Your task to perform on an android device: turn on priority inbox in the gmail app Image 0: 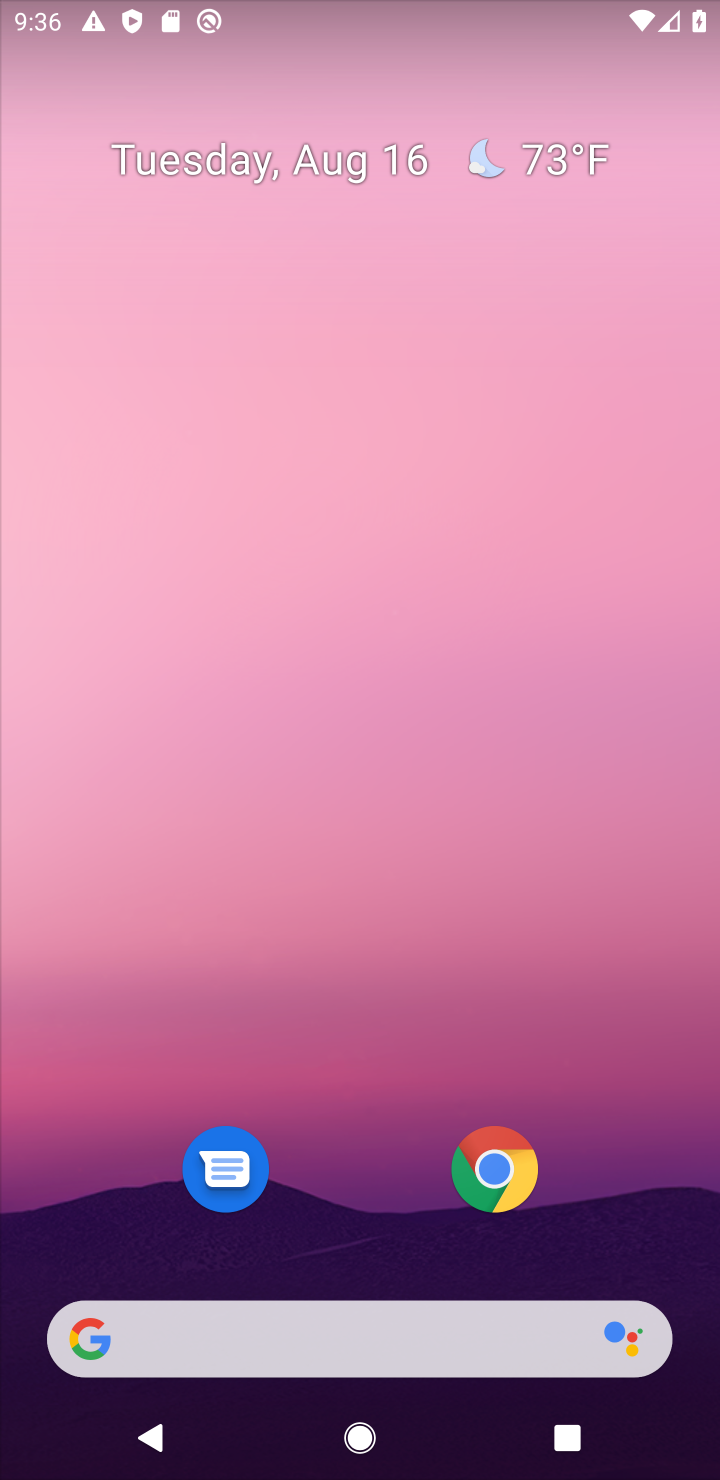
Step 0: drag from (341, 252) to (341, 73)
Your task to perform on an android device: turn on priority inbox in the gmail app Image 1: 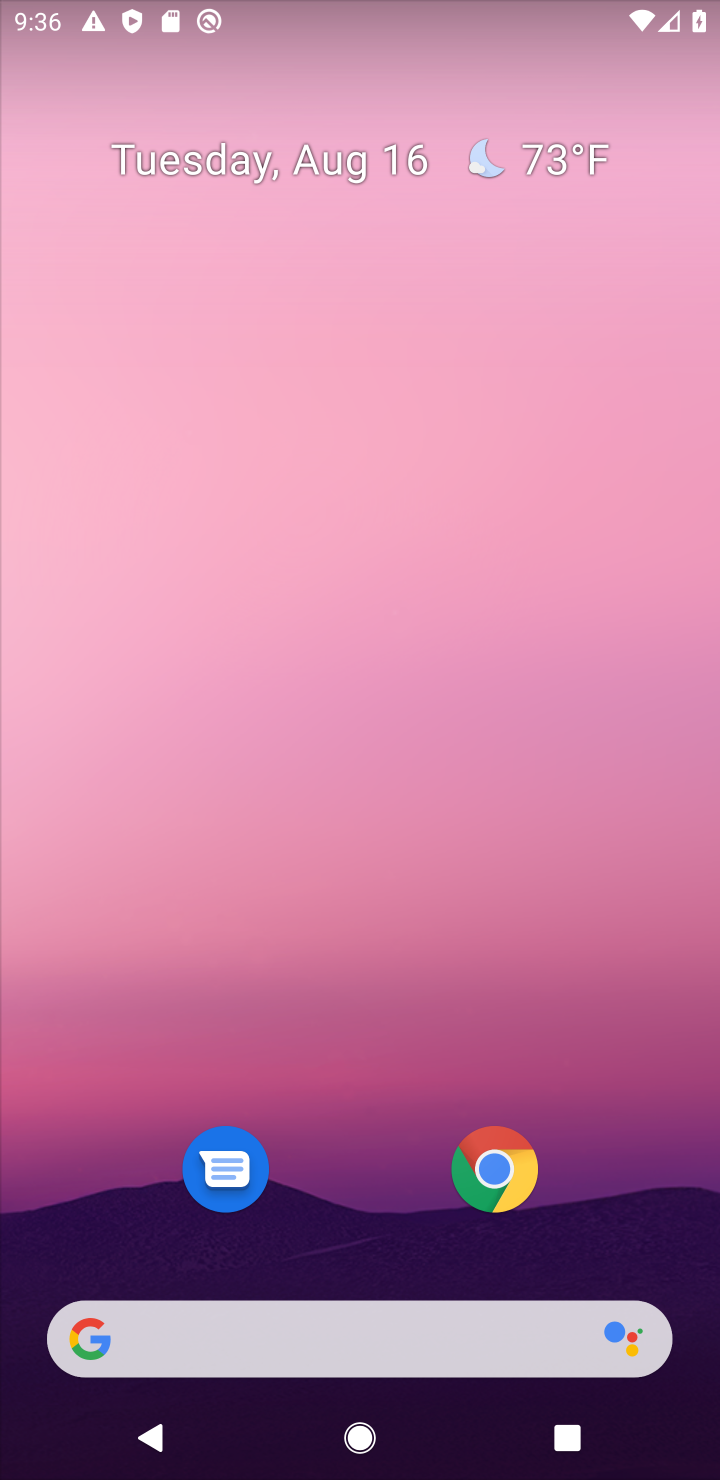
Step 1: drag from (362, 1041) to (377, 61)
Your task to perform on an android device: turn on priority inbox in the gmail app Image 2: 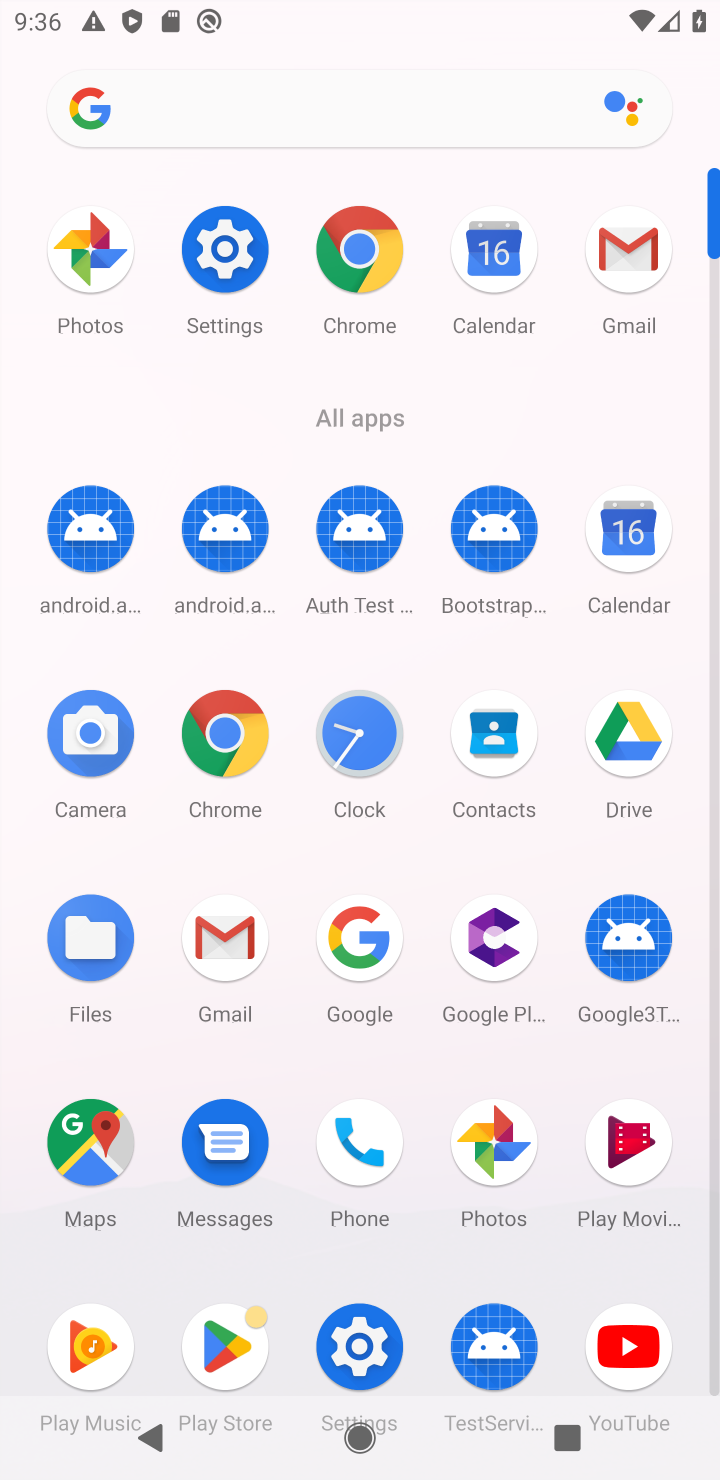
Step 2: click (618, 272)
Your task to perform on an android device: turn on priority inbox in the gmail app Image 3: 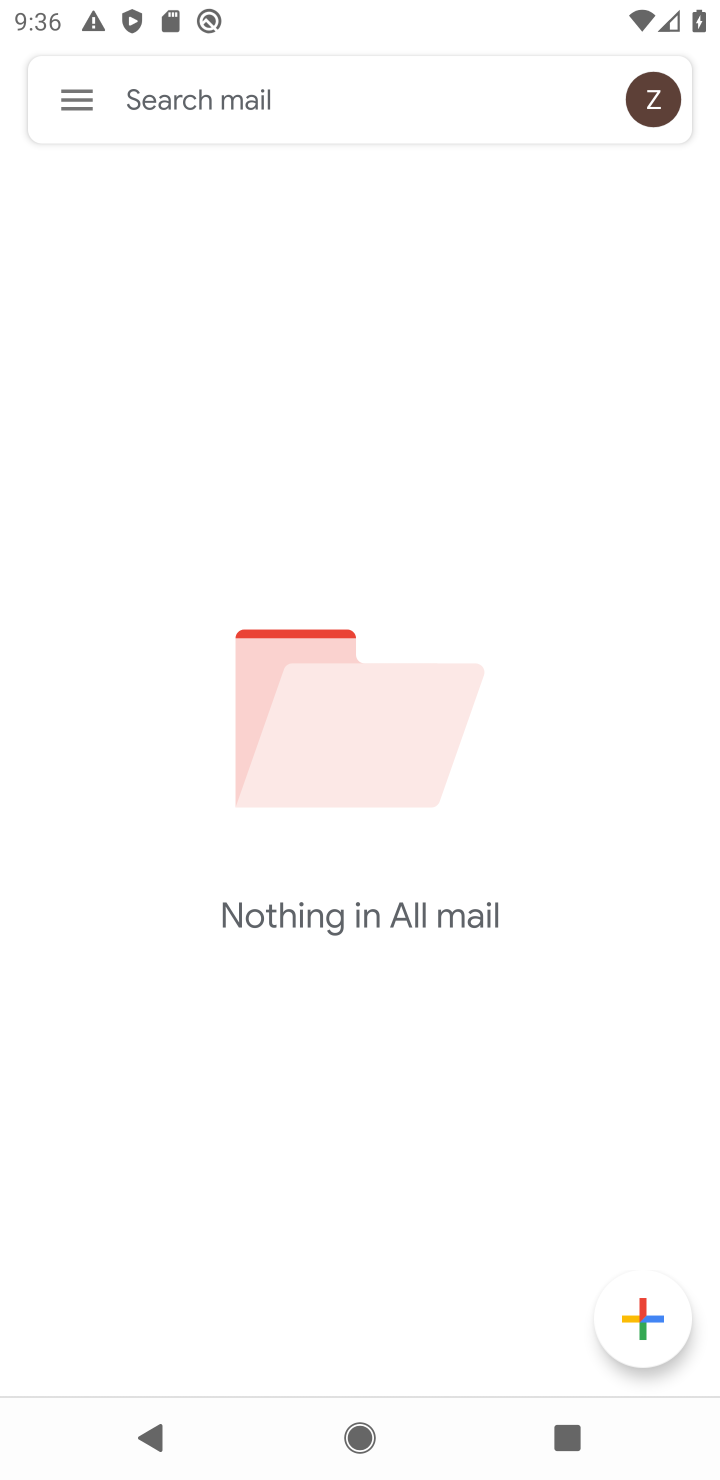
Step 3: click (76, 102)
Your task to perform on an android device: turn on priority inbox in the gmail app Image 4: 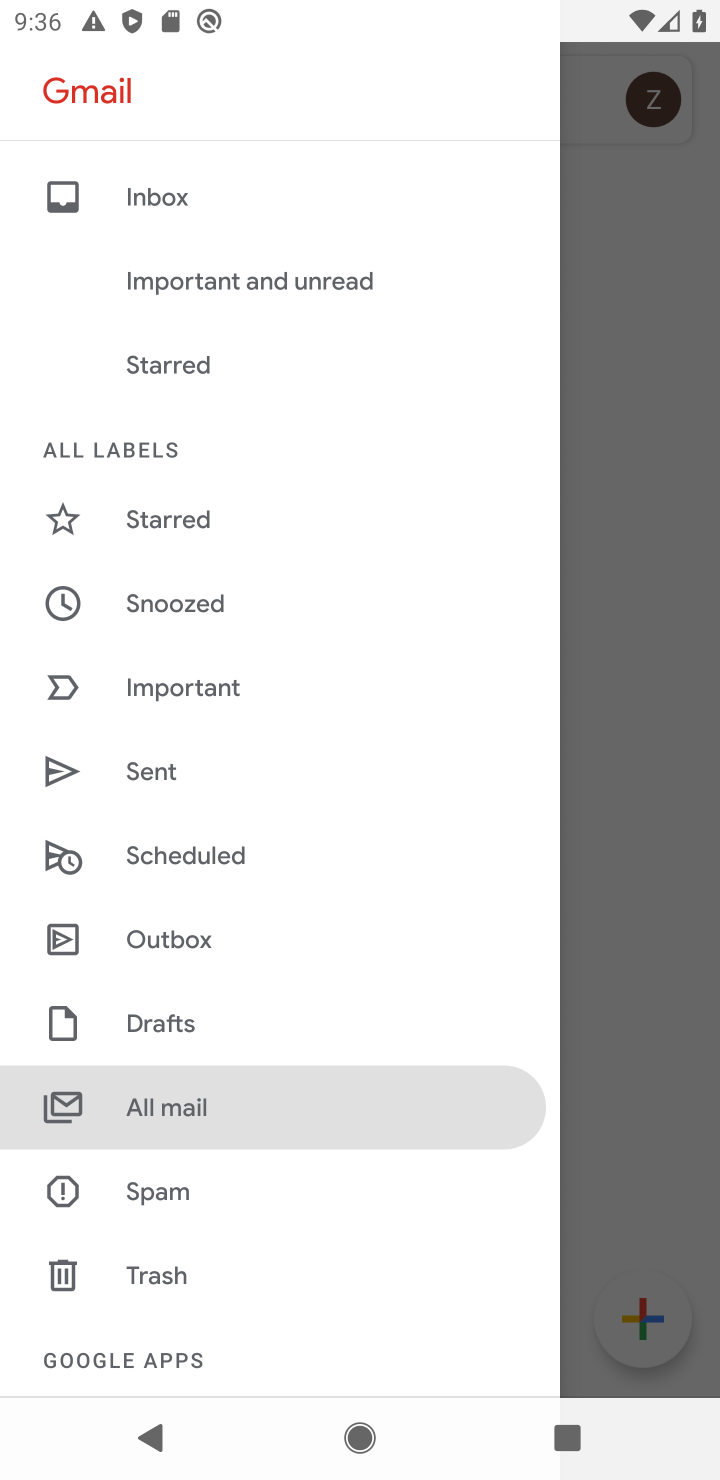
Step 4: drag from (194, 1328) to (147, 518)
Your task to perform on an android device: turn on priority inbox in the gmail app Image 5: 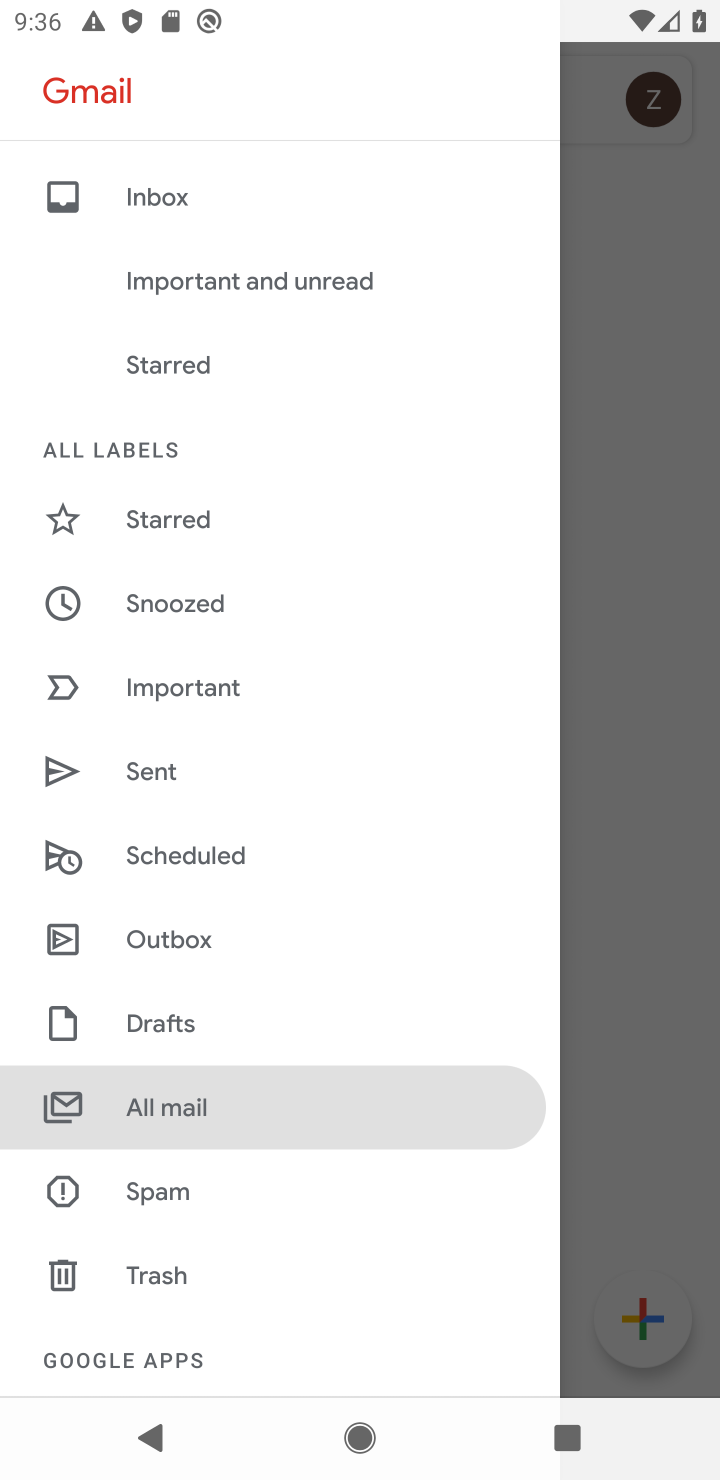
Step 5: drag from (226, 1231) to (219, 491)
Your task to perform on an android device: turn on priority inbox in the gmail app Image 6: 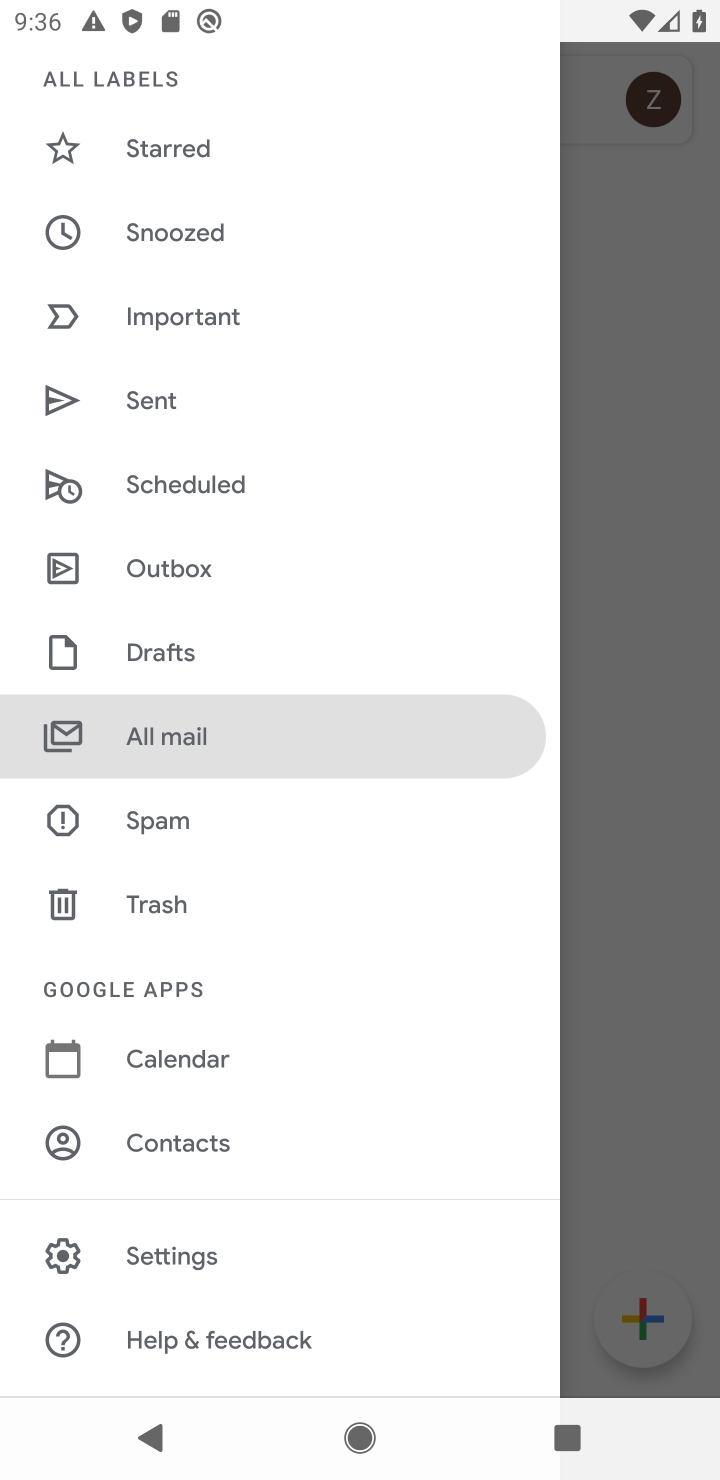
Step 6: click (137, 1236)
Your task to perform on an android device: turn on priority inbox in the gmail app Image 7: 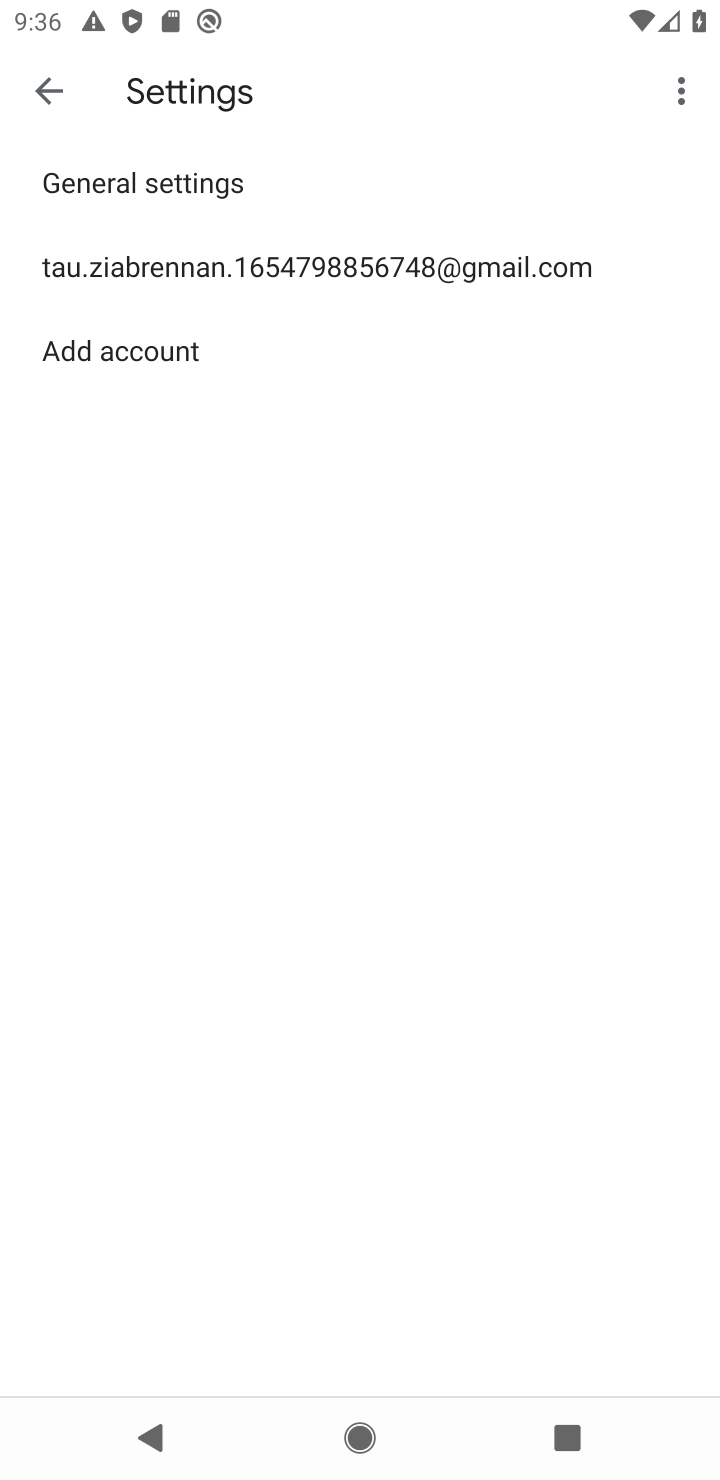
Step 7: click (257, 279)
Your task to perform on an android device: turn on priority inbox in the gmail app Image 8: 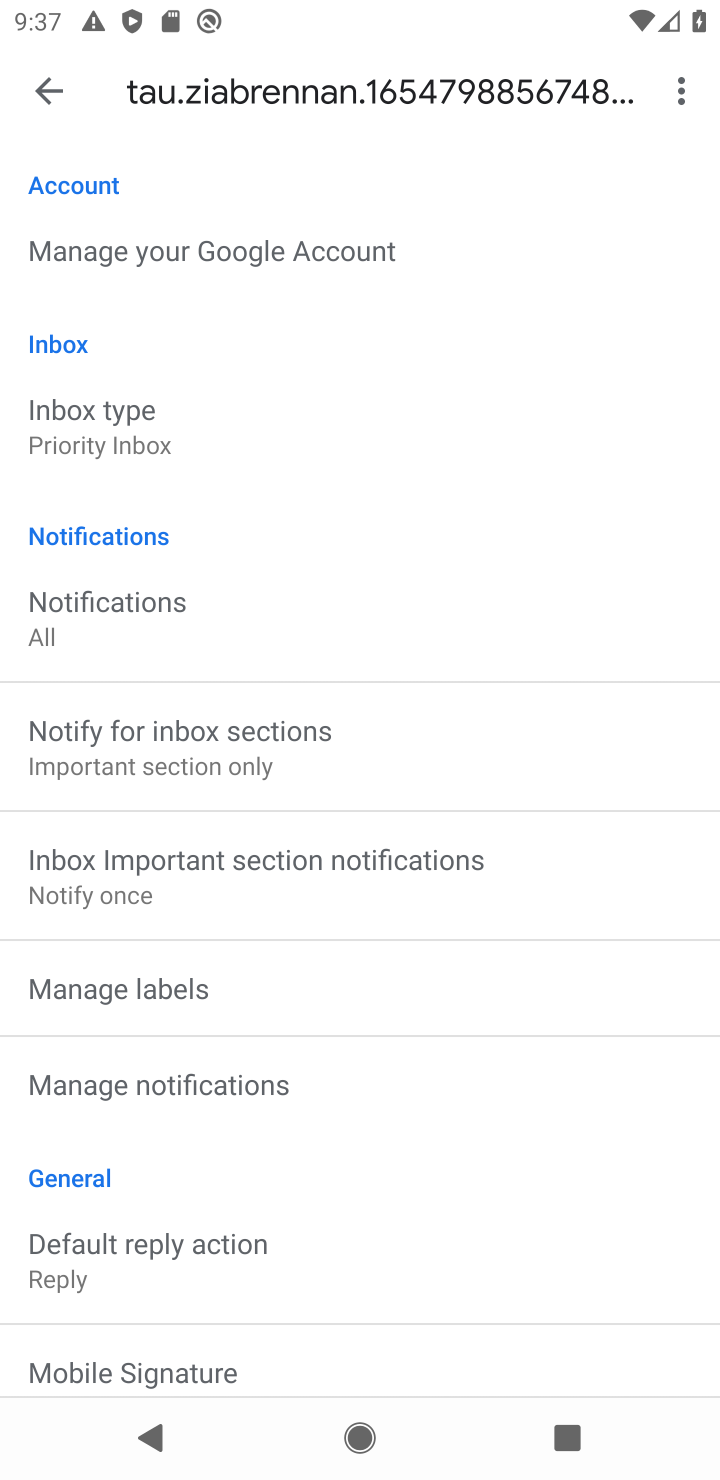
Step 8: click (85, 432)
Your task to perform on an android device: turn on priority inbox in the gmail app Image 9: 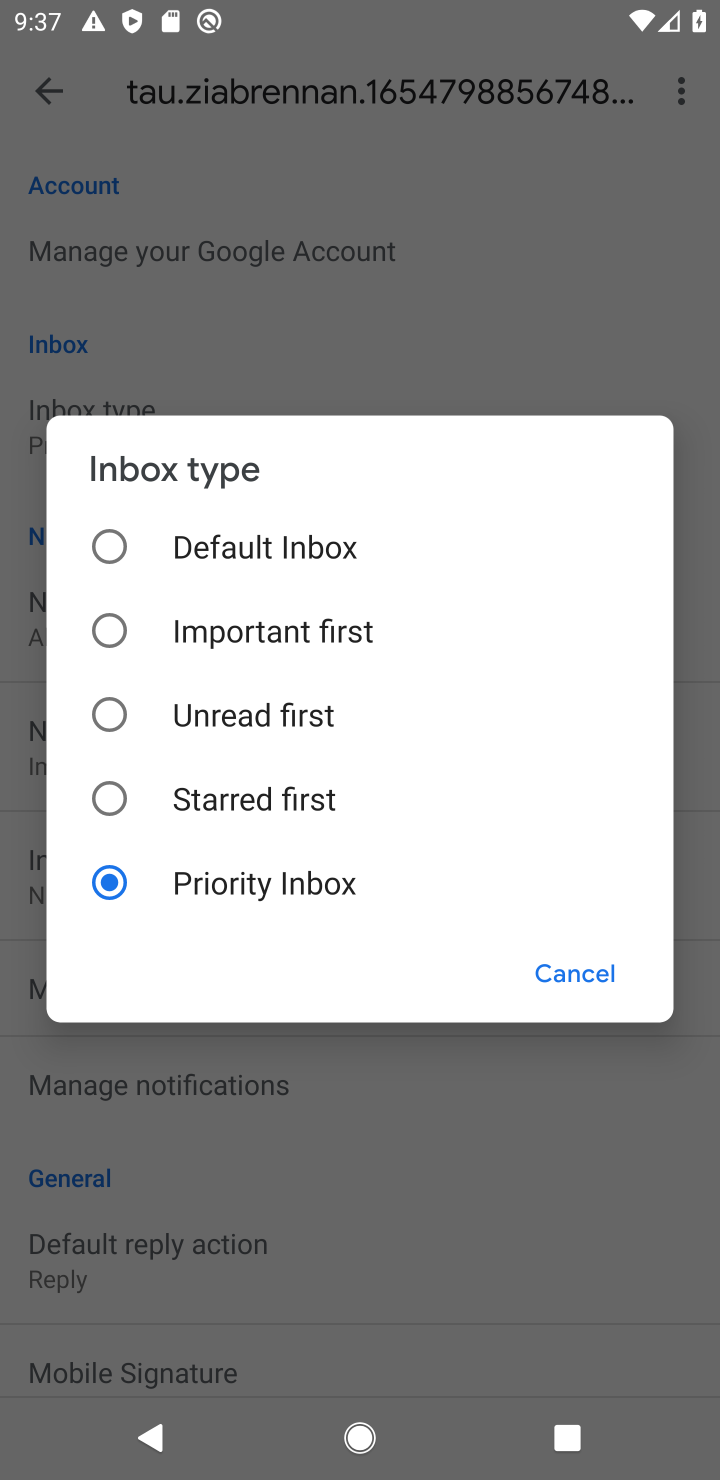
Step 9: task complete